Your task to perform on an android device: Open privacy settings Image 0: 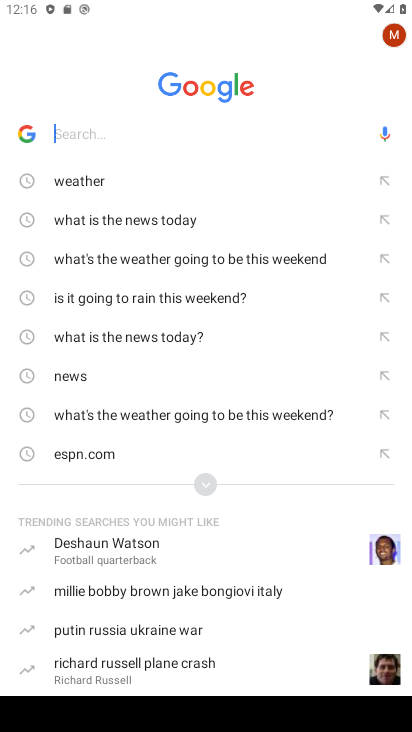
Step 0: press home button
Your task to perform on an android device: Open privacy settings Image 1: 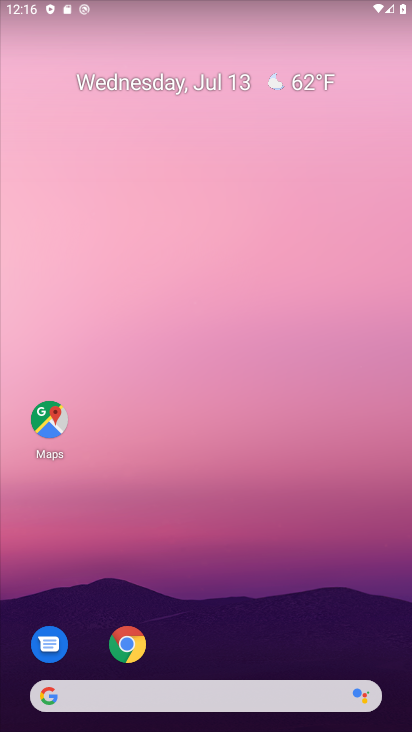
Step 1: click (120, 644)
Your task to perform on an android device: Open privacy settings Image 2: 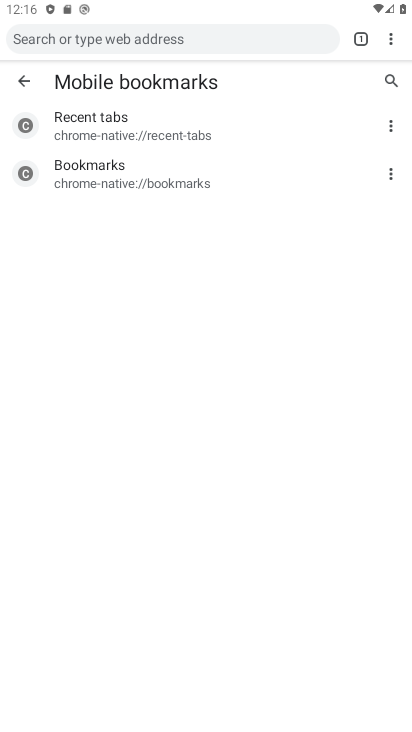
Step 2: press back button
Your task to perform on an android device: Open privacy settings Image 3: 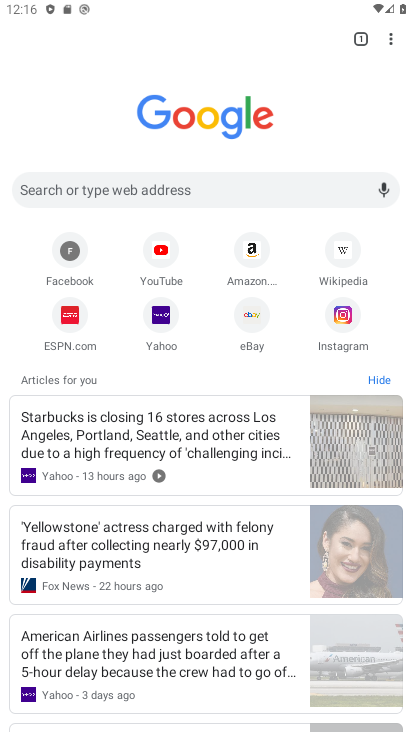
Step 3: press back button
Your task to perform on an android device: Open privacy settings Image 4: 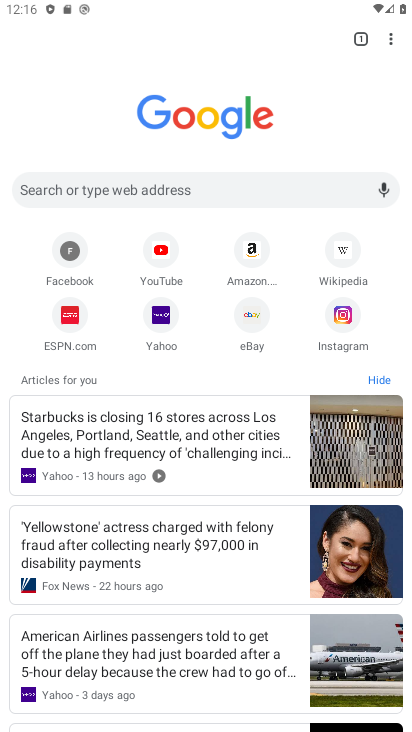
Step 4: press back button
Your task to perform on an android device: Open privacy settings Image 5: 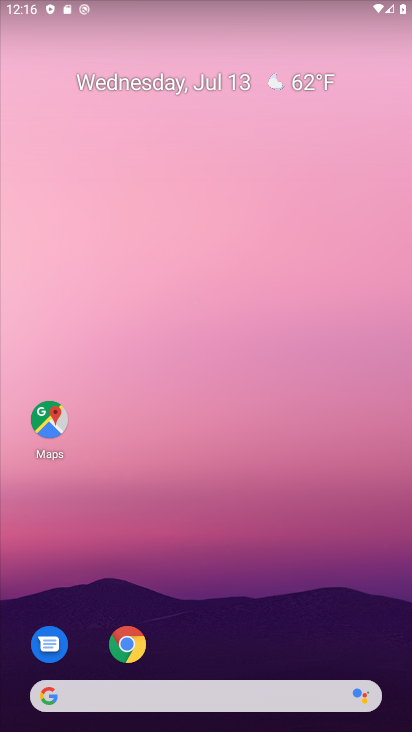
Step 5: click (137, 649)
Your task to perform on an android device: Open privacy settings Image 6: 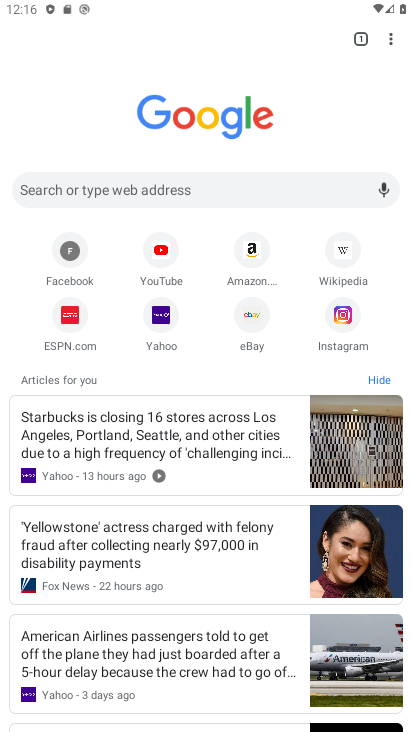
Step 6: drag from (390, 40) to (295, 333)
Your task to perform on an android device: Open privacy settings Image 7: 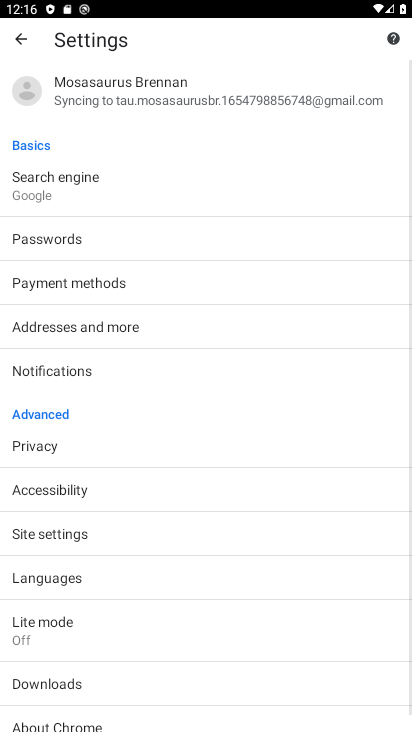
Step 7: click (135, 456)
Your task to perform on an android device: Open privacy settings Image 8: 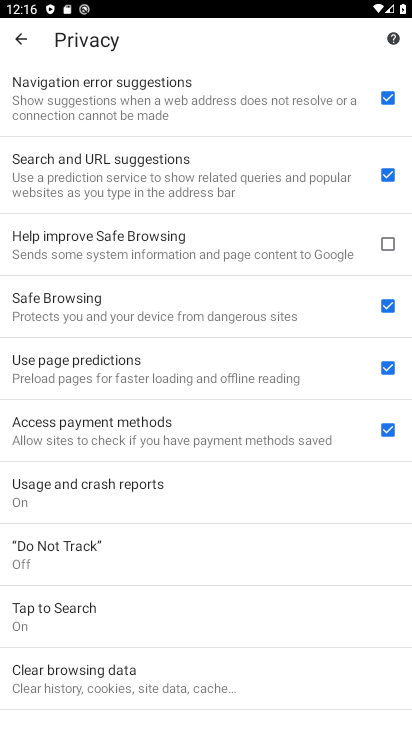
Step 8: task complete